Your task to perform on an android device: toggle improve location accuracy Image 0: 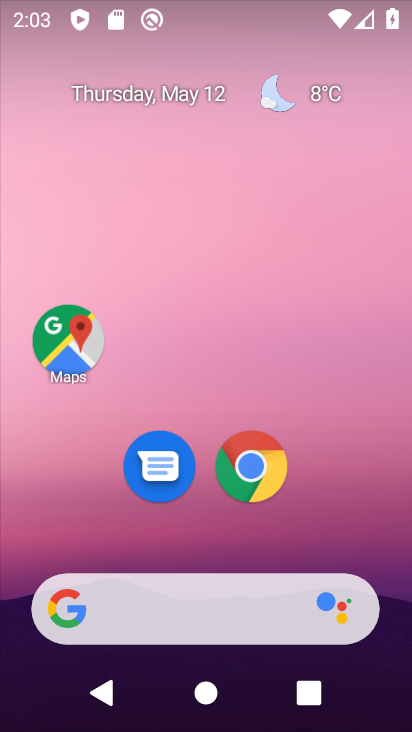
Step 0: drag from (314, 494) to (269, 116)
Your task to perform on an android device: toggle improve location accuracy Image 1: 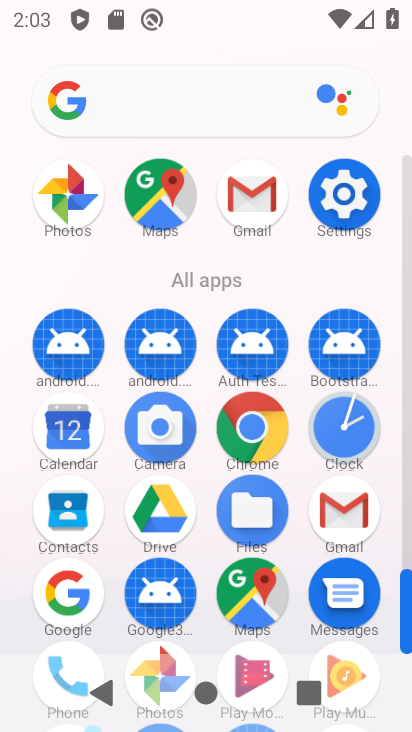
Step 1: click (353, 195)
Your task to perform on an android device: toggle improve location accuracy Image 2: 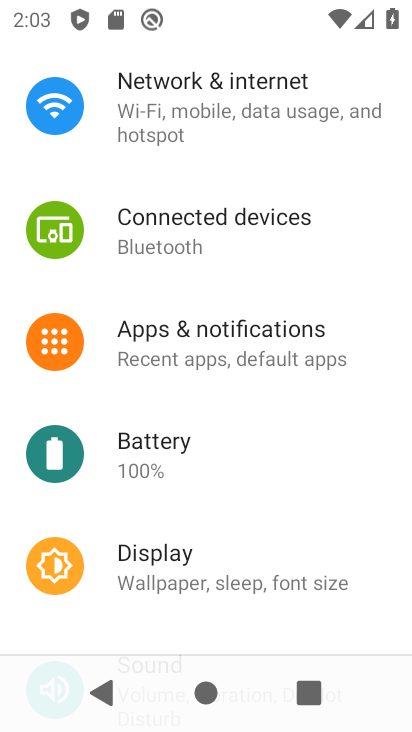
Step 2: drag from (229, 556) to (236, 213)
Your task to perform on an android device: toggle improve location accuracy Image 3: 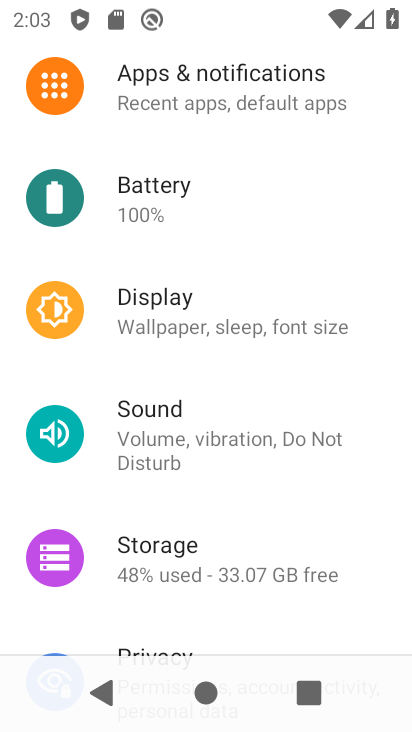
Step 3: drag from (260, 605) to (259, 212)
Your task to perform on an android device: toggle improve location accuracy Image 4: 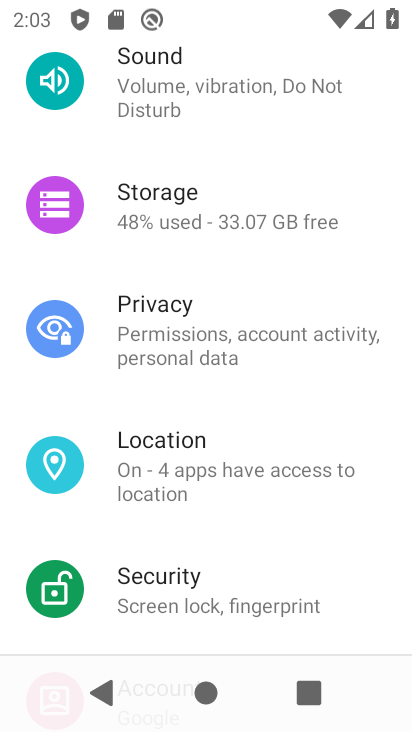
Step 4: click (204, 456)
Your task to perform on an android device: toggle improve location accuracy Image 5: 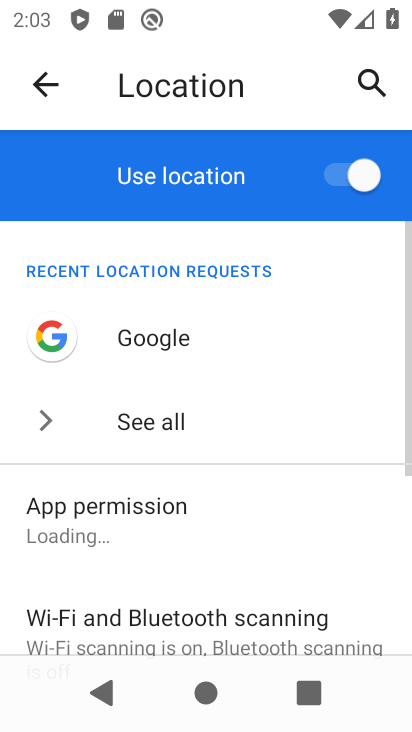
Step 5: drag from (193, 600) to (186, 234)
Your task to perform on an android device: toggle improve location accuracy Image 6: 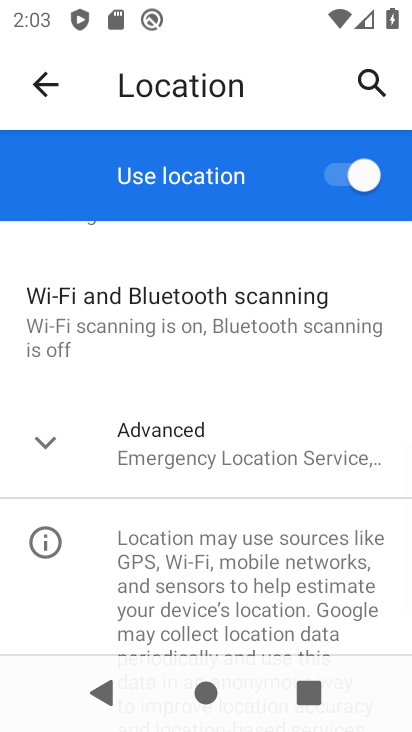
Step 6: click (191, 440)
Your task to perform on an android device: toggle improve location accuracy Image 7: 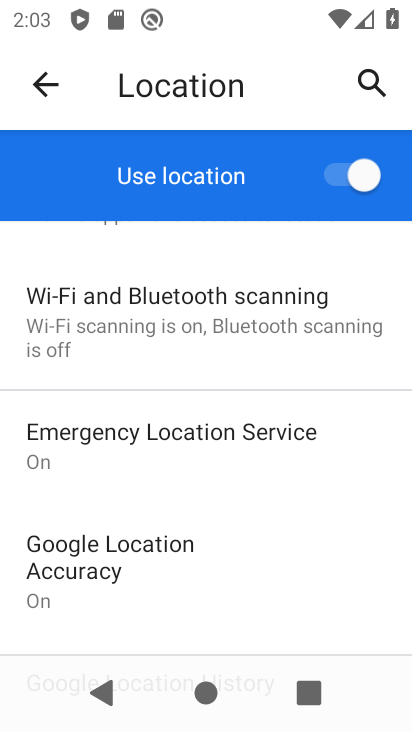
Step 7: click (63, 554)
Your task to perform on an android device: toggle improve location accuracy Image 8: 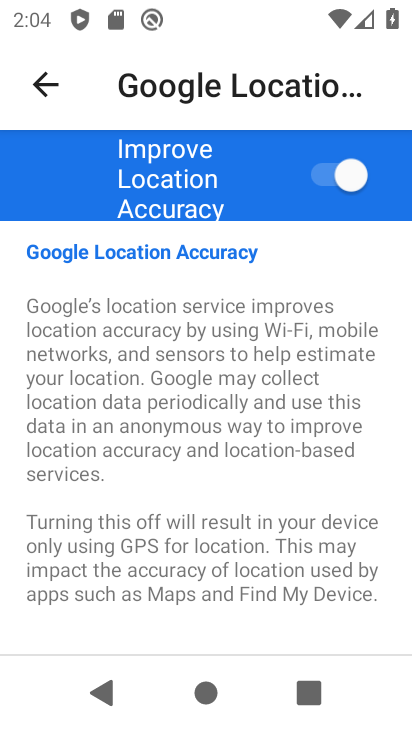
Step 8: click (344, 173)
Your task to perform on an android device: toggle improve location accuracy Image 9: 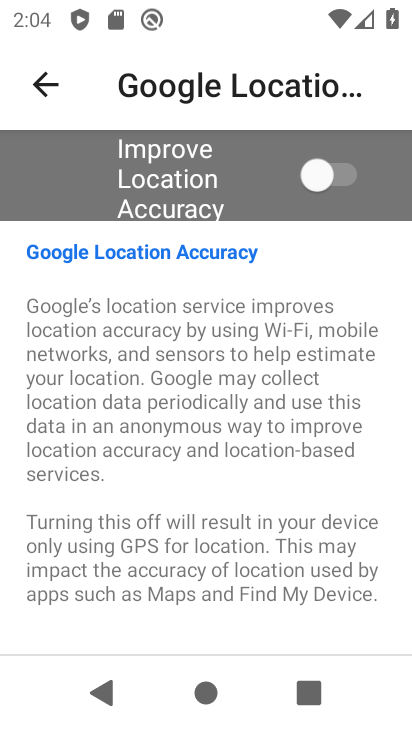
Step 9: task complete